Your task to perform on an android device: turn off location Image 0: 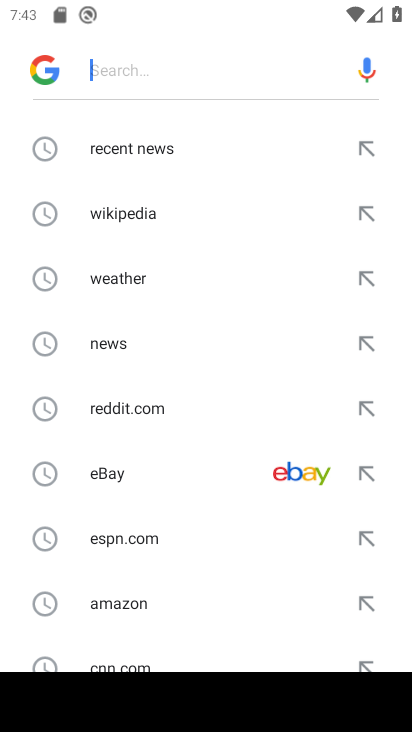
Step 0: press home button
Your task to perform on an android device: turn off location Image 1: 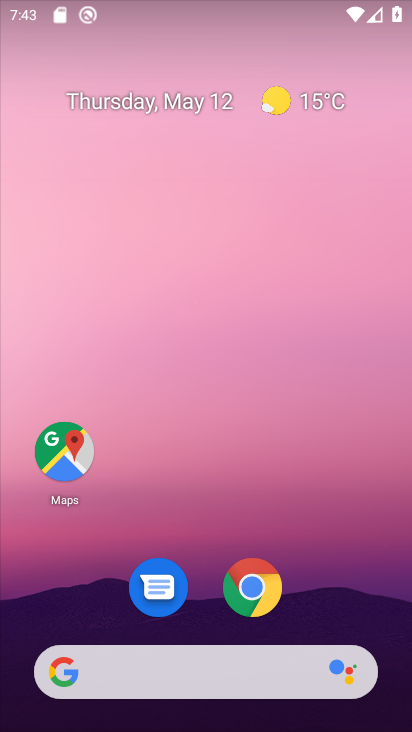
Step 1: drag from (389, 611) to (270, 66)
Your task to perform on an android device: turn off location Image 2: 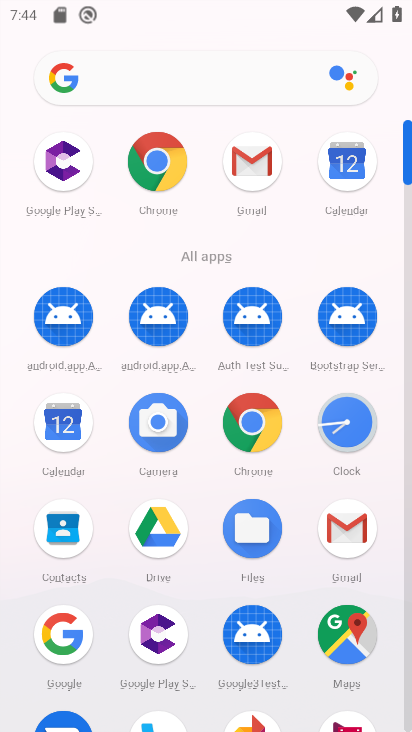
Step 2: drag from (192, 590) to (203, 213)
Your task to perform on an android device: turn off location Image 3: 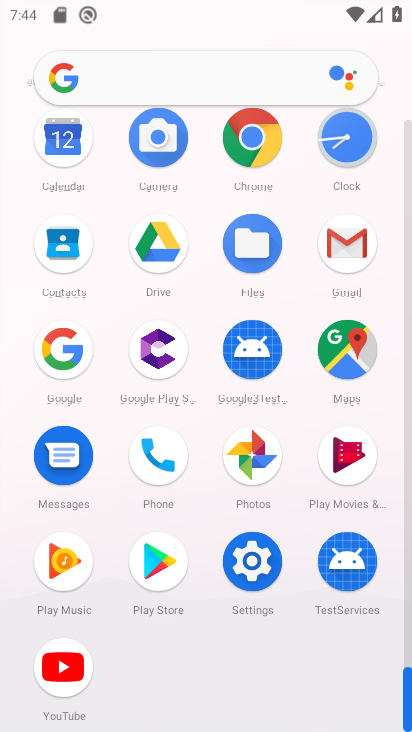
Step 3: click (257, 549)
Your task to perform on an android device: turn off location Image 4: 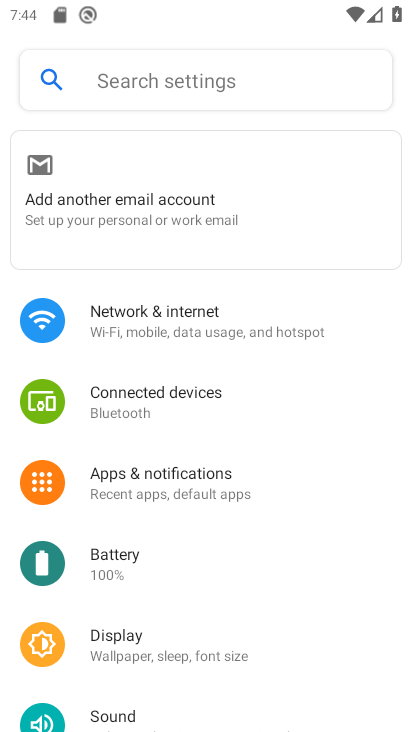
Step 4: drag from (176, 641) to (231, 288)
Your task to perform on an android device: turn off location Image 5: 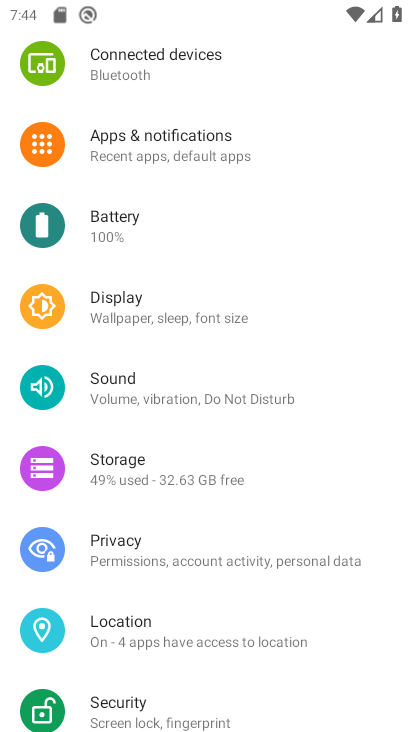
Step 5: click (177, 627)
Your task to perform on an android device: turn off location Image 6: 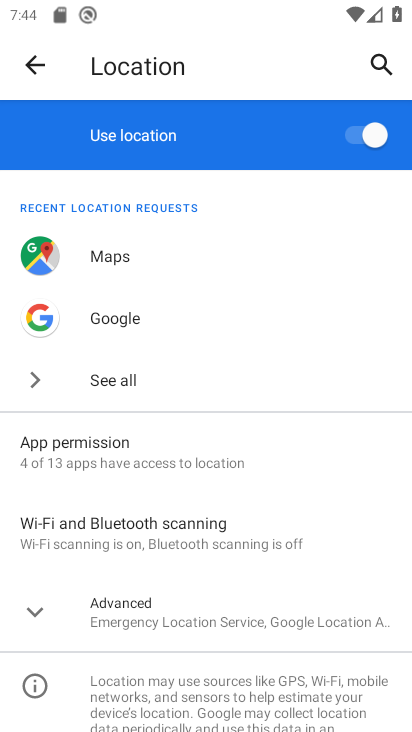
Step 6: click (367, 140)
Your task to perform on an android device: turn off location Image 7: 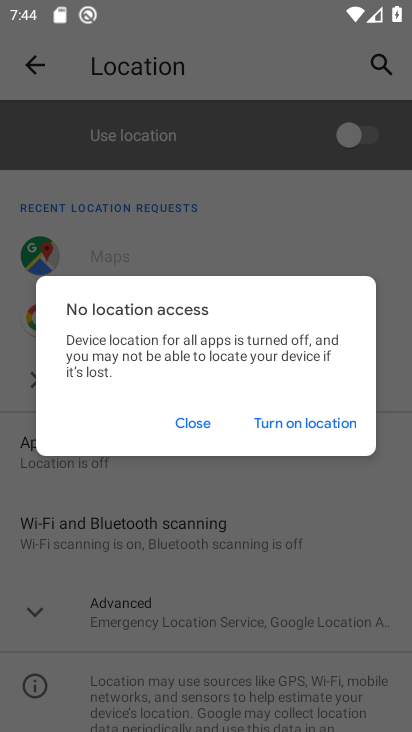
Step 7: task complete